Your task to perform on an android device: set an alarm Image 0: 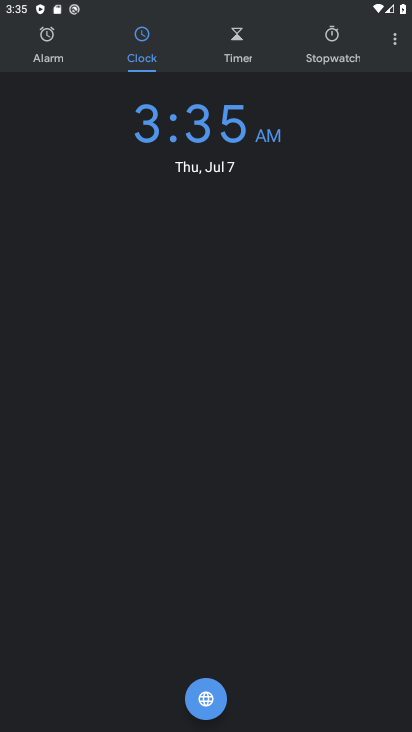
Step 0: click (61, 61)
Your task to perform on an android device: set an alarm Image 1: 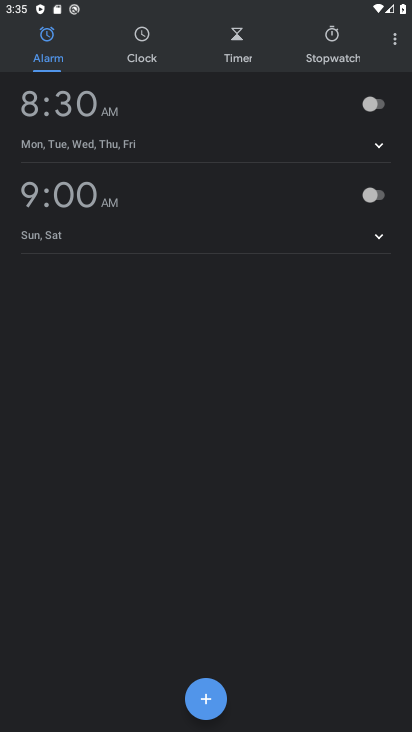
Step 1: click (216, 701)
Your task to perform on an android device: set an alarm Image 2: 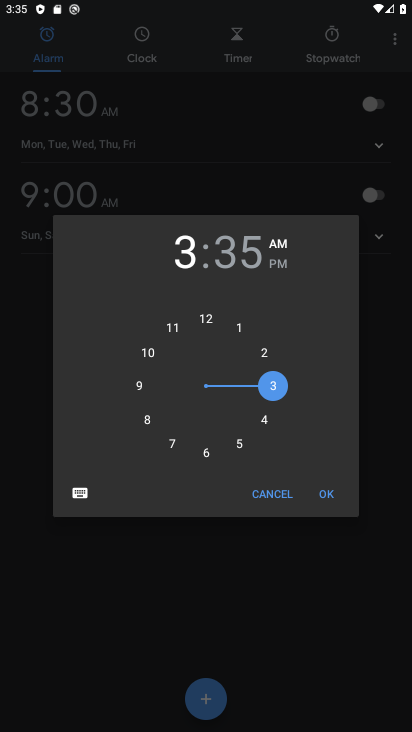
Step 2: click (249, 428)
Your task to perform on an android device: set an alarm Image 3: 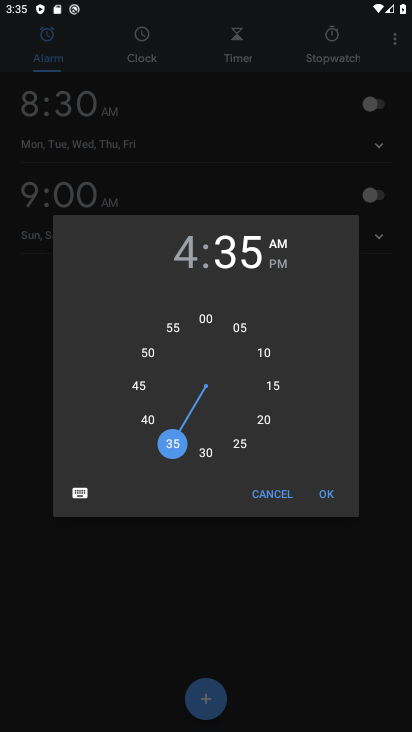
Step 3: click (240, 454)
Your task to perform on an android device: set an alarm Image 4: 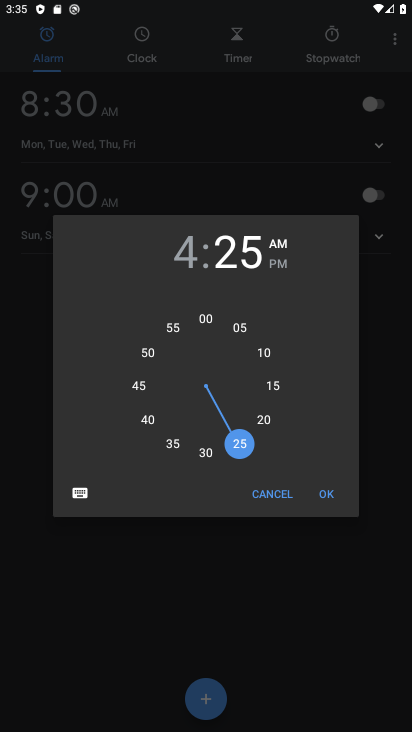
Step 4: click (210, 329)
Your task to perform on an android device: set an alarm Image 5: 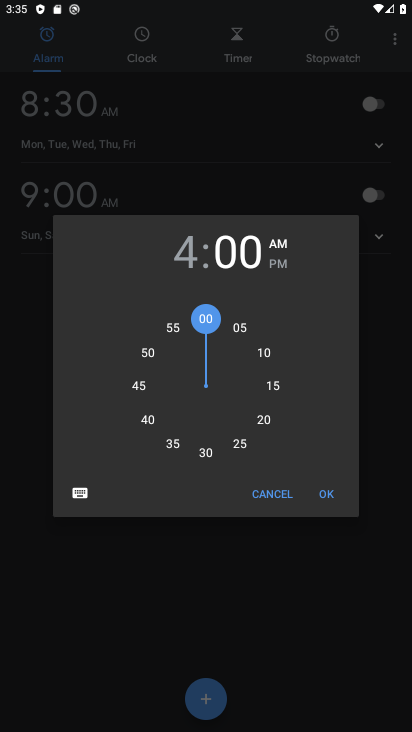
Step 5: click (150, 355)
Your task to perform on an android device: set an alarm Image 6: 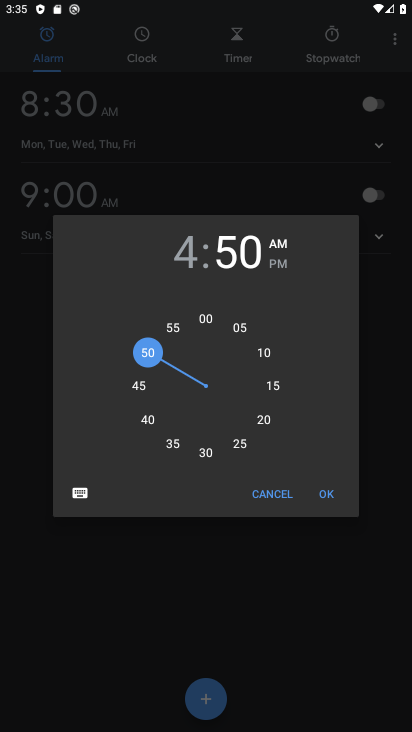
Step 6: click (339, 499)
Your task to perform on an android device: set an alarm Image 7: 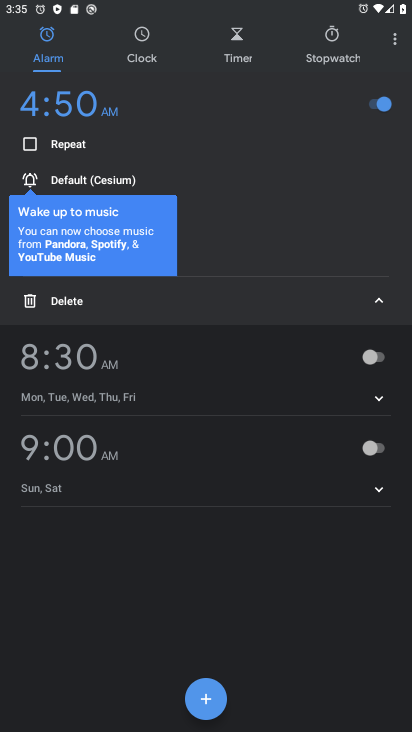
Step 7: task complete